Your task to perform on an android device: Search for pizza restaurants on Maps Image 0: 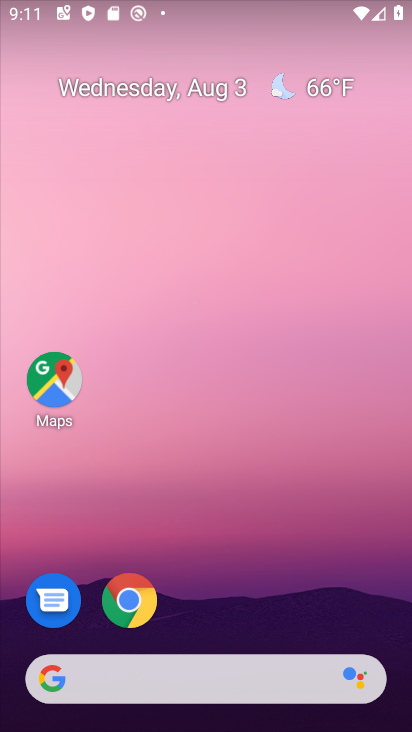
Step 0: click (129, 607)
Your task to perform on an android device: Search for pizza restaurants on Maps Image 1: 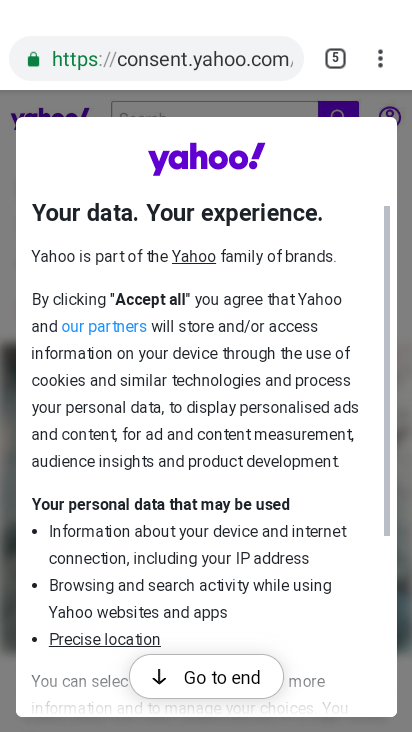
Step 1: press home button
Your task to perform on an android device: Search for pizza restaurants on Maps Image 2: 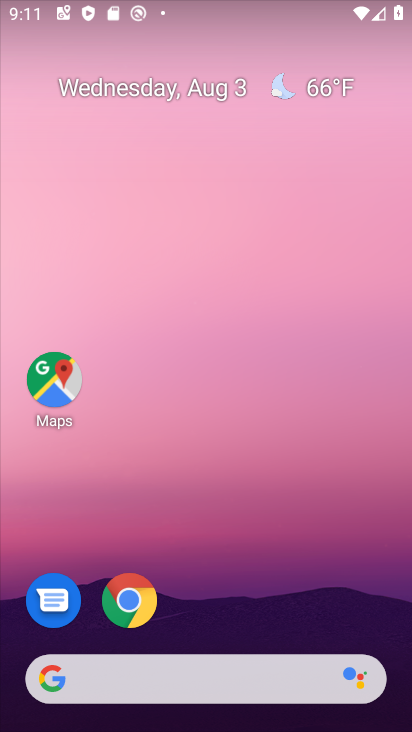
Step 2: click (63, 389)
Your task to perform on an android device: Search for pizza restaurants on Maps Image 3: 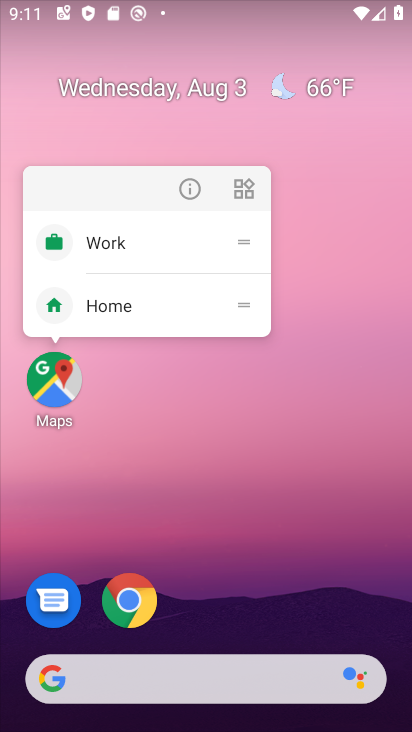
Step 3: click (62, 385)
Your task to perform on an android device: Search for pizza restaurants on Maps Image 4: 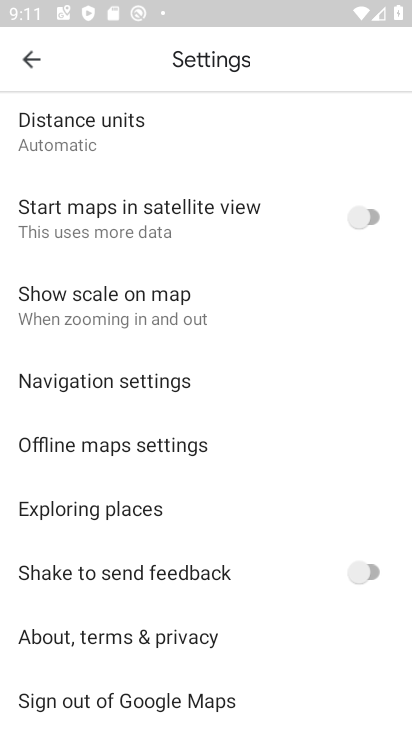
Step 4: click (34, 55)
Your task to perform on an android device: Search for pizza restaurants on Maps Image 5: 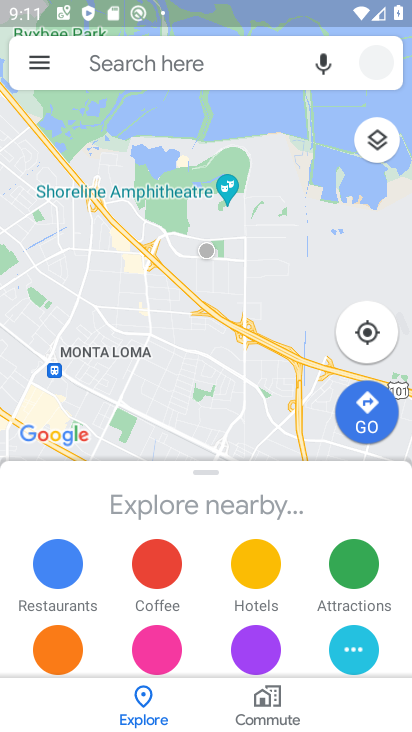
Step 5: click (39, 70)
Your task to perform on an android device: Search for pizza restaurants on Maps Image 6: 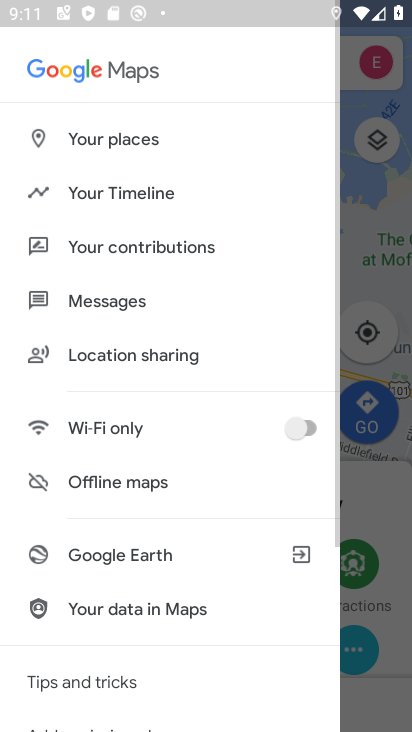
Step 6: click (381, 201)
Your task to perform on an android device: Search for pizza restaurants on Maps Image 7: 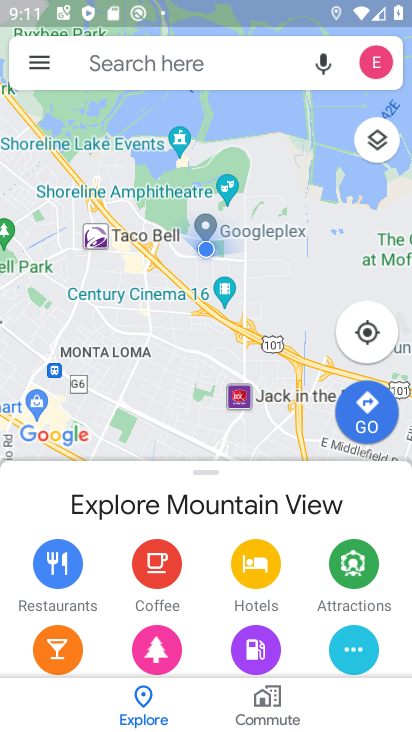
Step 7: click (130, 63)
Your task to perform on an android device: Search for pizza restaurants on Maps Image 8: 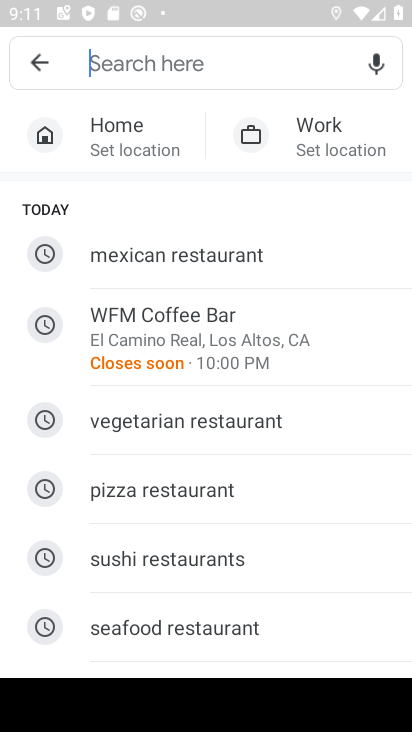
Step 8: type "Pizza restaurants"
Your task to perform on an android device: Search for pizza restaurants on Maps Image 9: 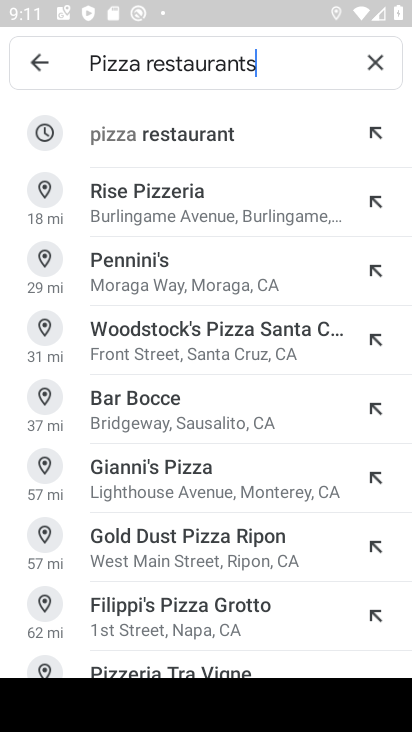
Step 9: click (158, 139)
Your task to perform on an android device: Search for pizza restaurants on Maps Image 10: 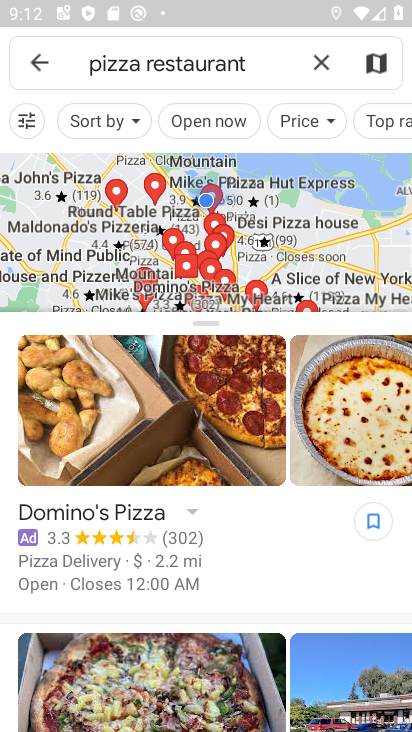
Step 10: task complete